Your task to perform on an android device: When is my next meeting? Image 0: 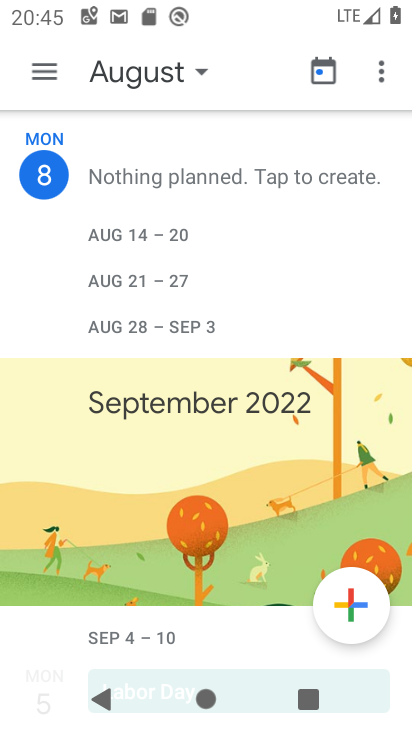
Step 0: press home button
Your task to perform on an android device: When is my next meeting? Image 1: 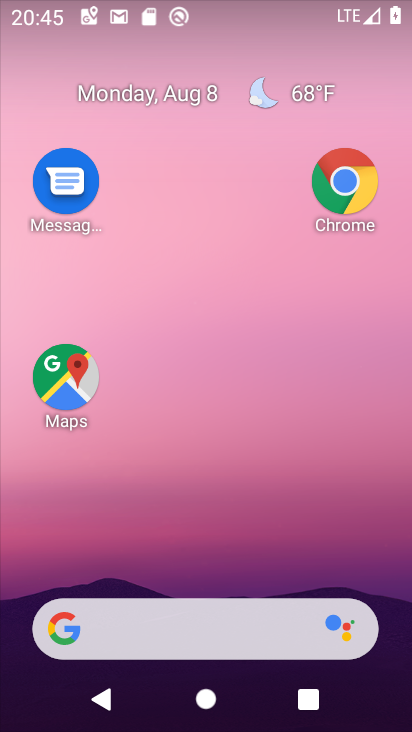
Step 1: drag from (157, 563) to (90, 111)
Your task to perform on an android device: When is my next meeting? Image 2: 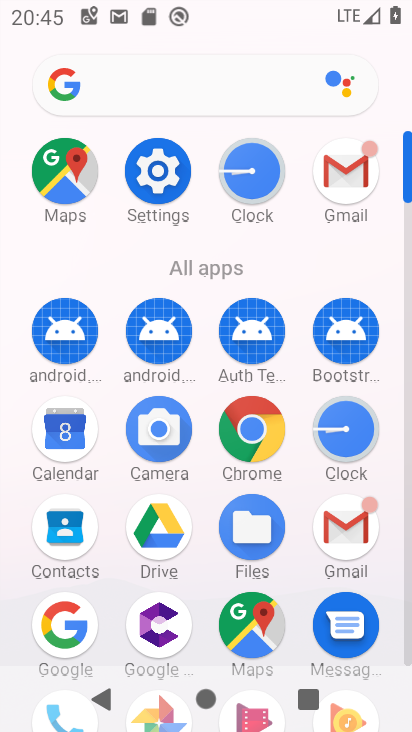
Step 2: click (69, 433)
Your task to perform on an android device: When is my next meeting? Image 3: 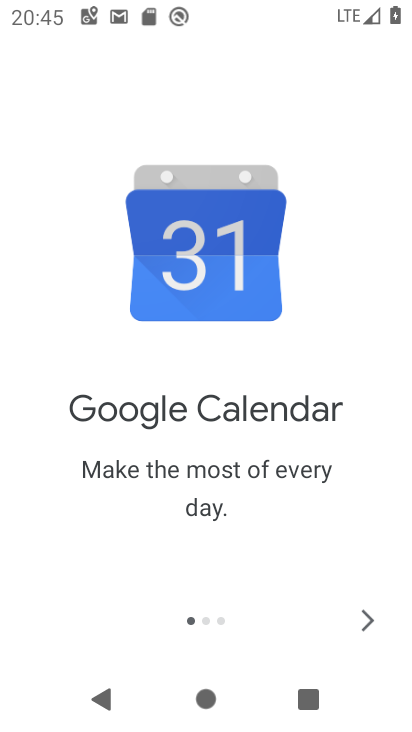
Step 3: click (376, 618)
Your task to perform on an android device: When is my next meeting? Image 4: 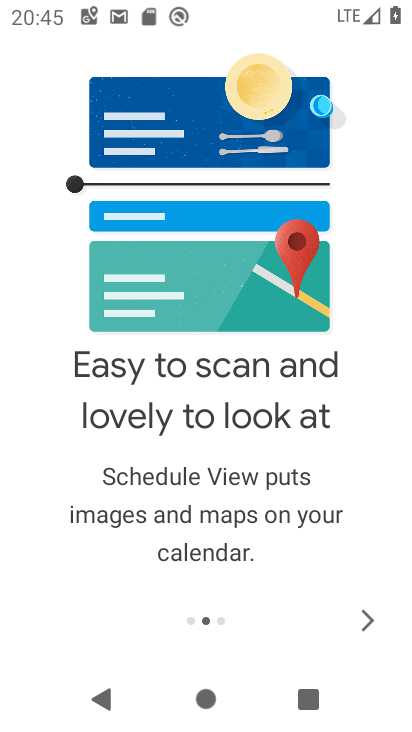
Step 4: click (376, 618)
Your task to perform on an android device: When is my next meeting? Image 5: 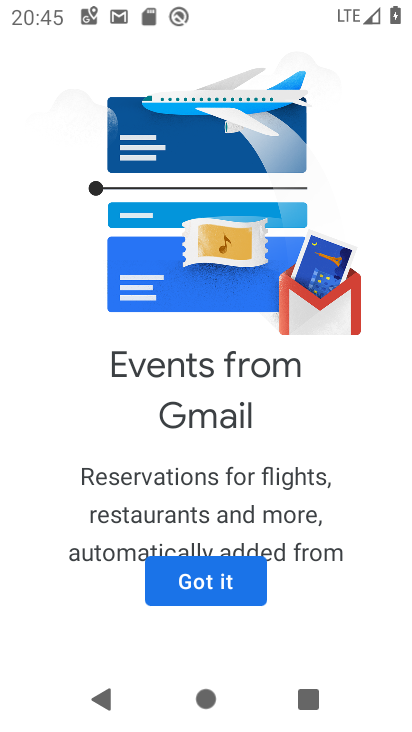
Step 5: click (243, 577)
Your task to perform on an android device: When is my next meeting? Image 6: 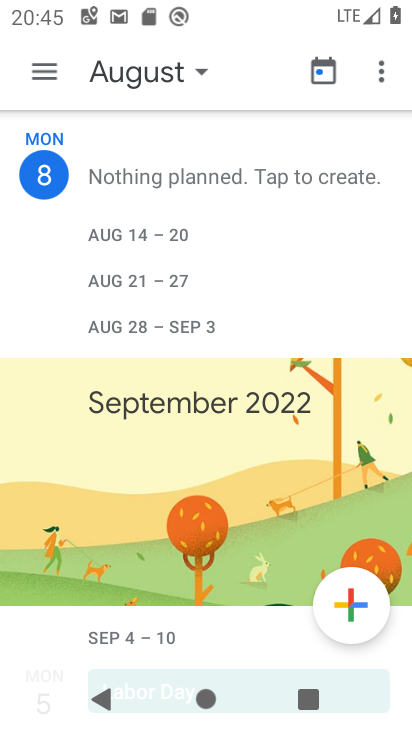
Step 6: click (348, 70)
Your task to perform on an android device: When is my next meeting? Image 7: 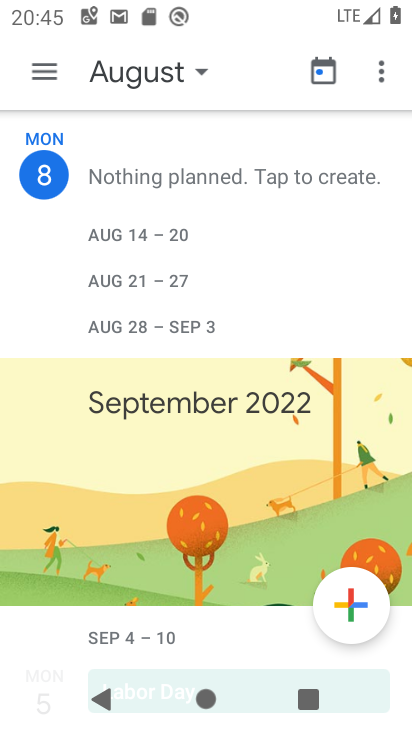
Step 7: click (333, 69)
Your task to perform on an android device: When is my next meeting? Image 8: 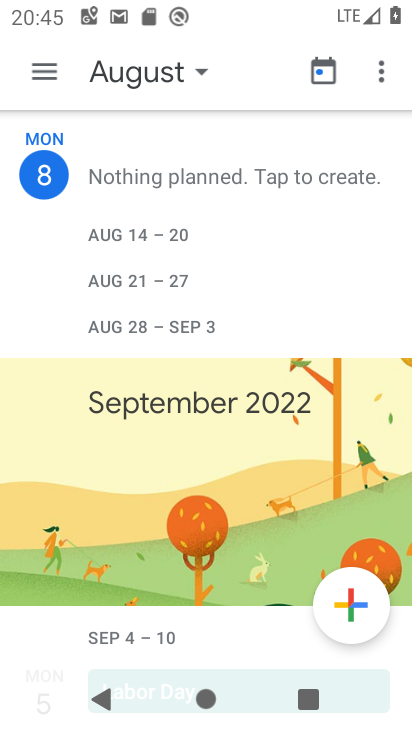
Step 8: click (327, 75)
Your task to perform on an android device: When is my next meeting? Image 9: 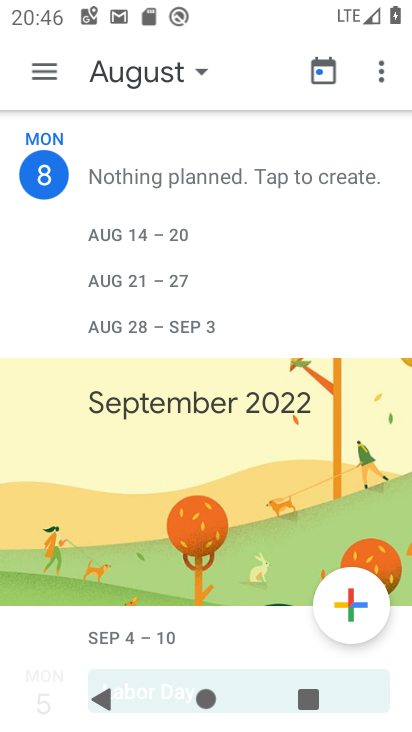
Step 9: click (327, 75)
Your task to perform on an android device: When is my next meeting? Image 10: 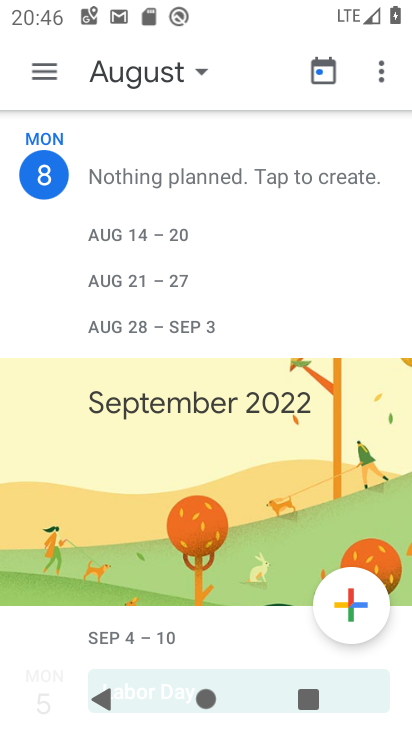
Step 10: click (327, 75)
Your task to perform on an android device: When is my next meeting? Image 11: 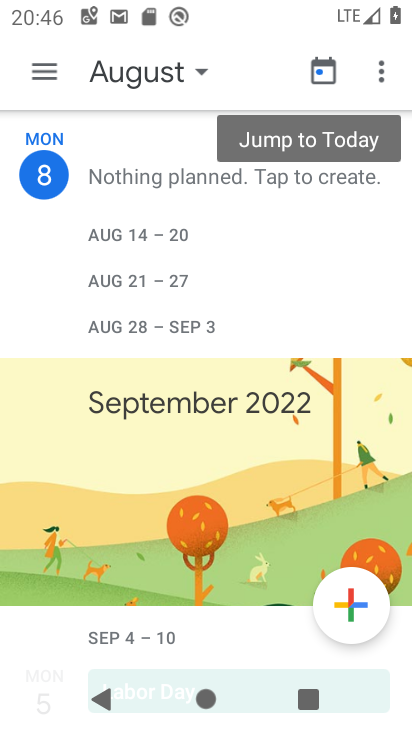
Step 11: click (327, 75)
Your task to perform on an android device: When is my next meeting? Image 12: 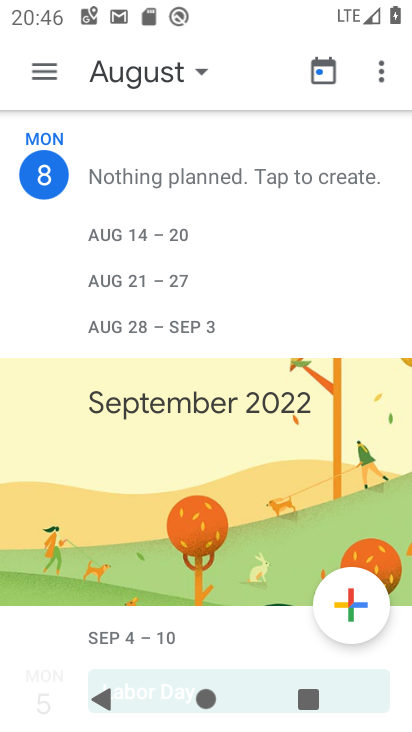
Step 12: click (50, 77)
Your task to perform on an android device: When is my next meeting? Image 13: 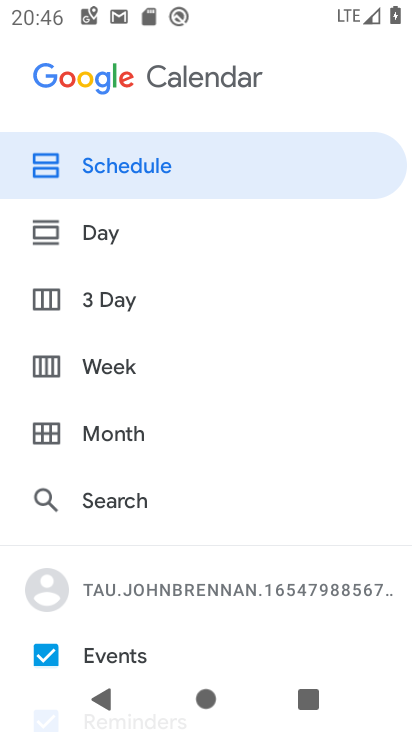
Step 13: click (118, 370)
Your task to perform on an android device: When is my next meeting? Image 14: 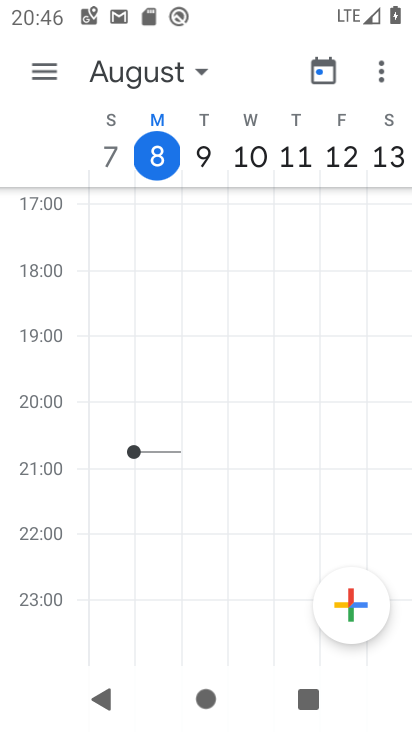
Step 14: click (397, 154)
Your task to perform on an android device: When is my next meeting? Image 15: 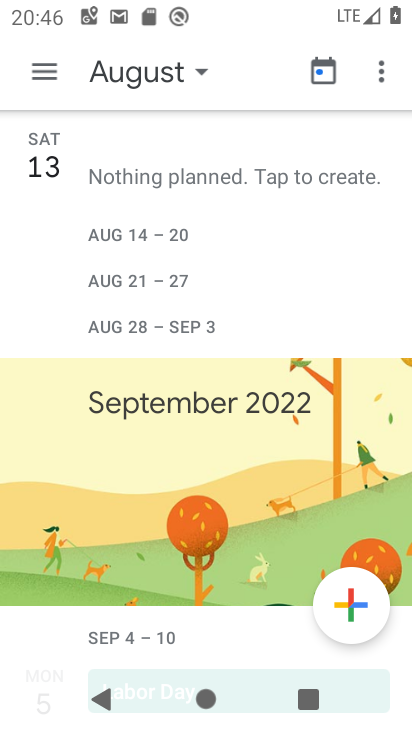
Step 15: task complete